Your task to perform on an android device: Turn off the flashlight Image 0: 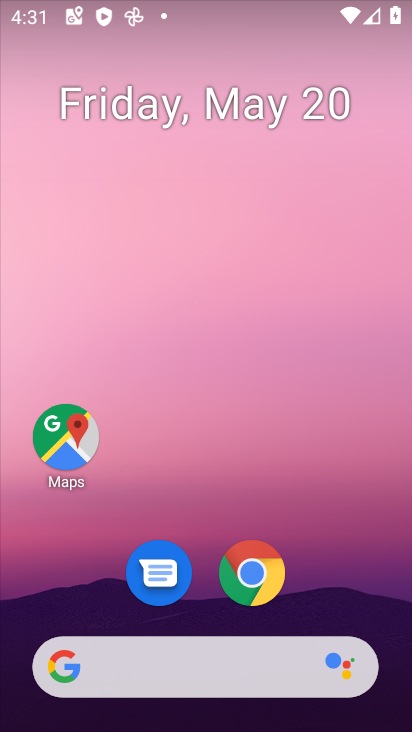
Step 0: drag from (230, 9) to (312, 494)
Your task to perform on an android device: Turn off the flashlight Image 1: 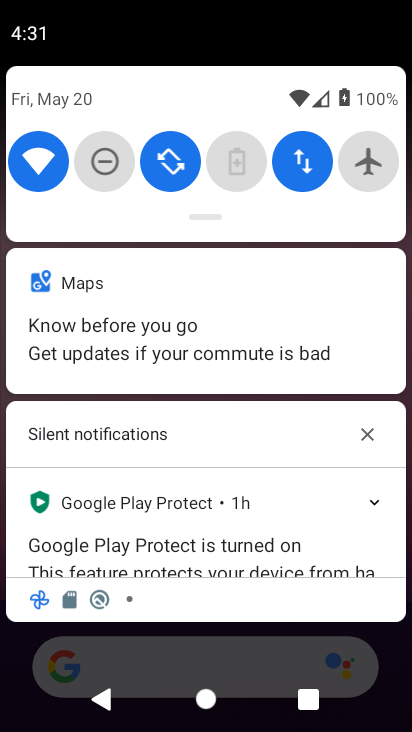
Step 1: drag from (215, 214) to (226, 545)
Your task to perform on an android device: Turn off the flashlight Image 2: 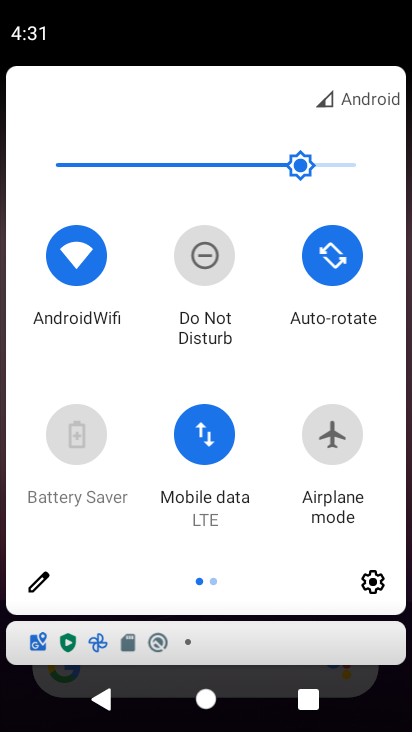
Step 2: click (28, 583)
Your task to perform on an android device: Turn off the flashlight Image 3: 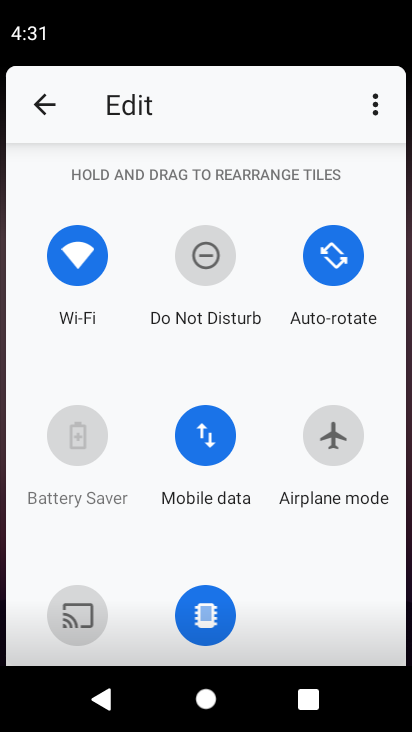
Step 3: task complete